Your task to perform on an android device: turn pop-ups on in chrome Image 0: 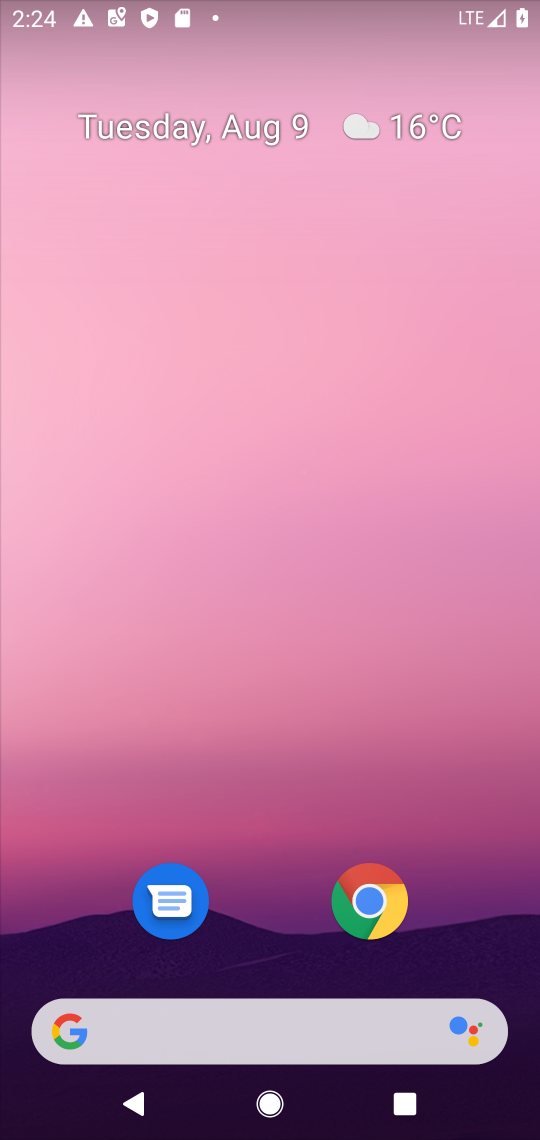
Step 0: click (375, 903)
Your task to perform on an android device: turn pop-ups on in chrome Image 1: 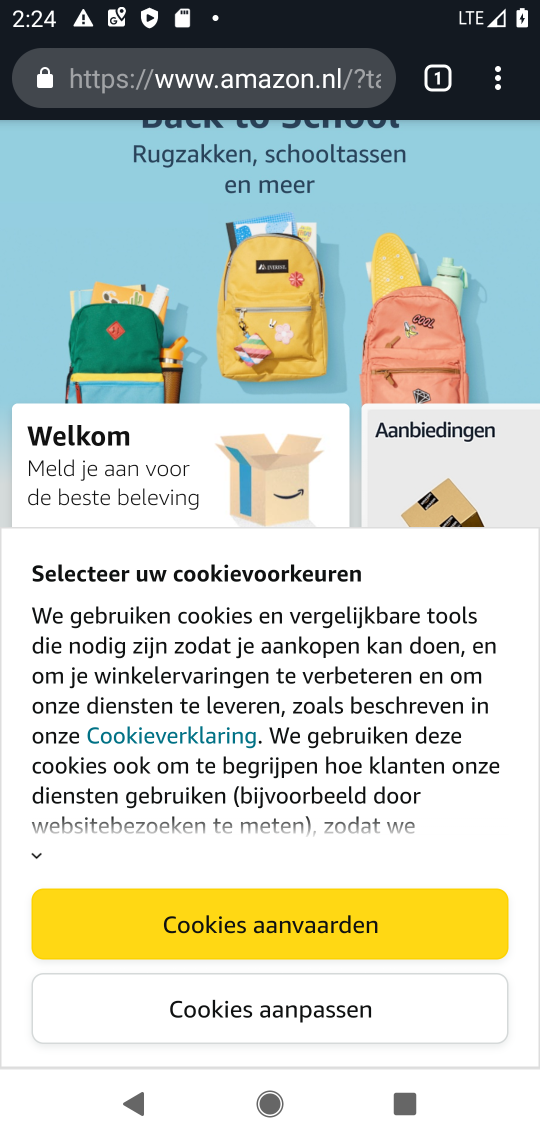
Step 1: click (490, 89)
Your task to perform on an android device: turn pop-ups on in chrome Image 2: 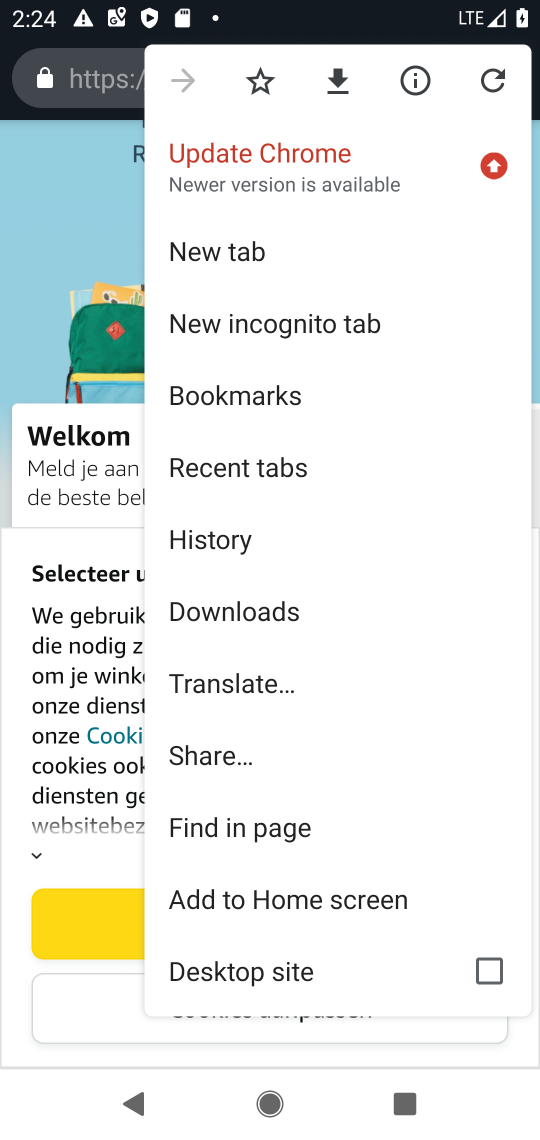
Step 2: drag from (377, 939) to (394, 432)
Your task to perform on an android device: turn pop-ups on in chrome Image 3: 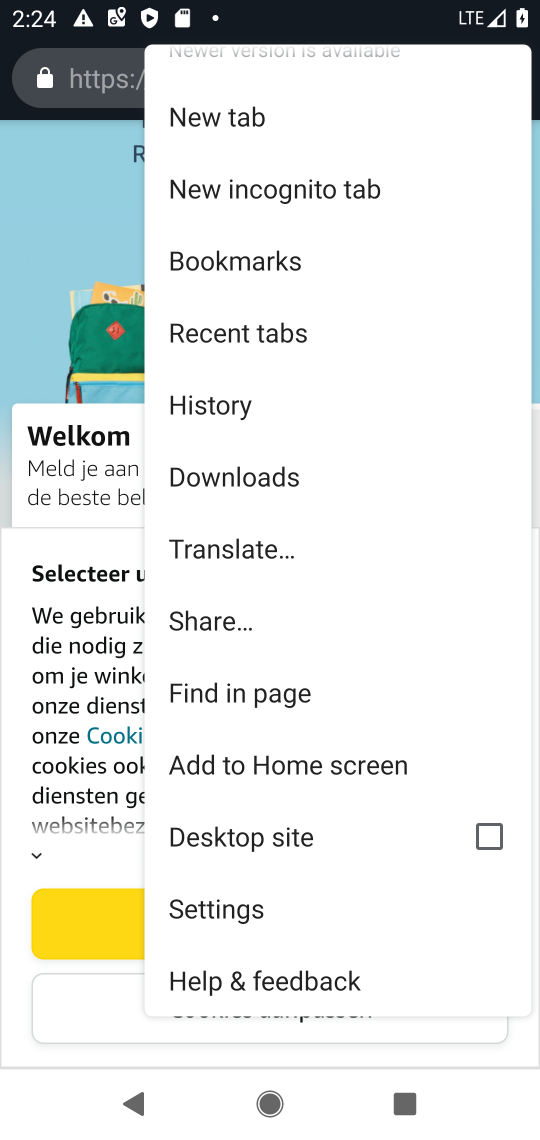
Step 3: click (218, 910)
Your task to perform on an android device: turn pop-ups on in chrome Image 4: 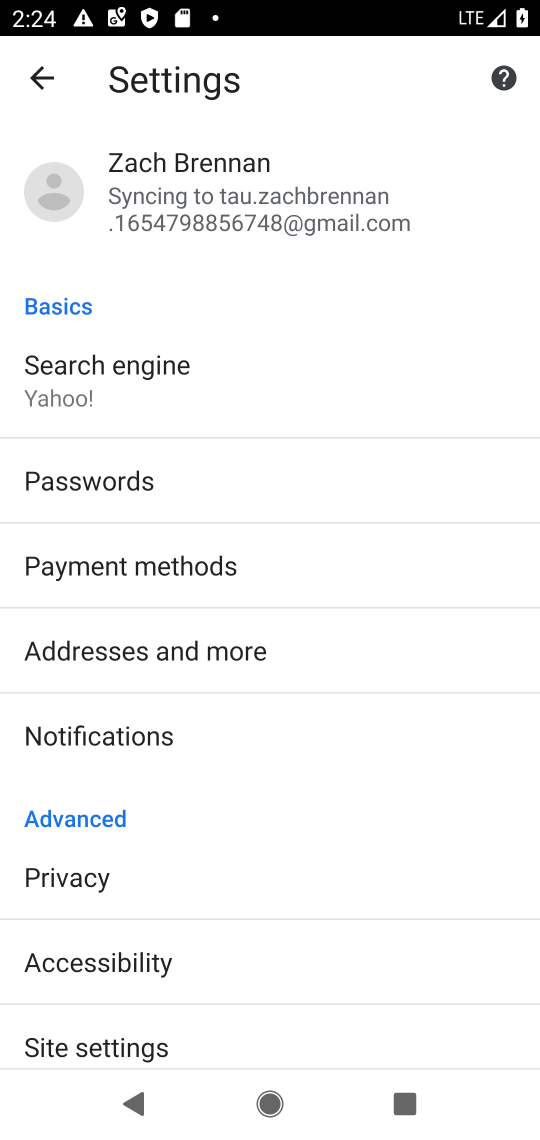
Step 4: drag from (350, 920) to (337, 387)
Your task to perform on an android device: turn pop-ups on in chrome Image 5: 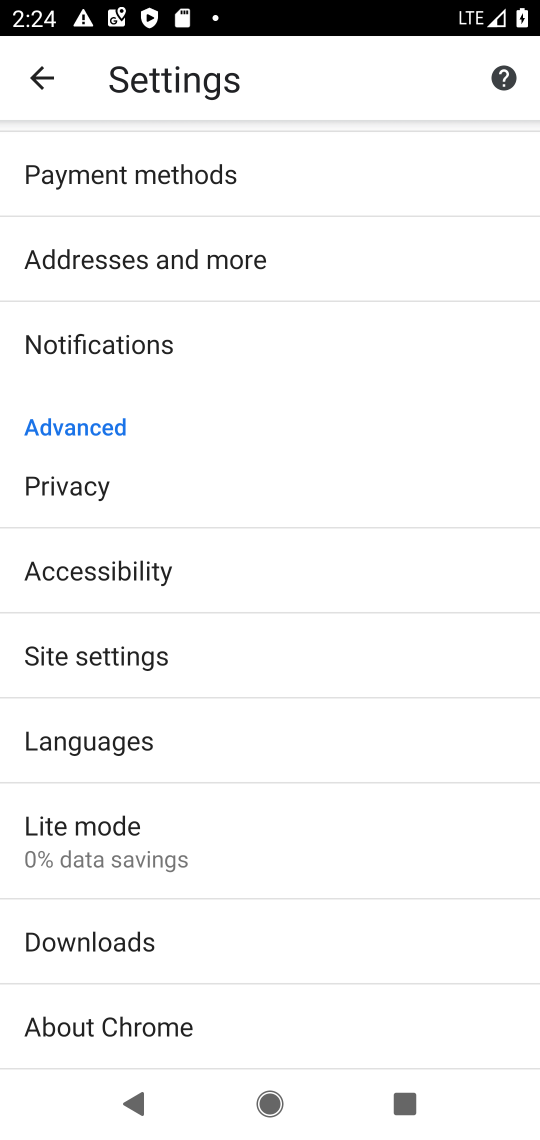
Step 5: click (116, 657)
Your task to perform on an android device: turn pop-ups on in chrome Image 6: 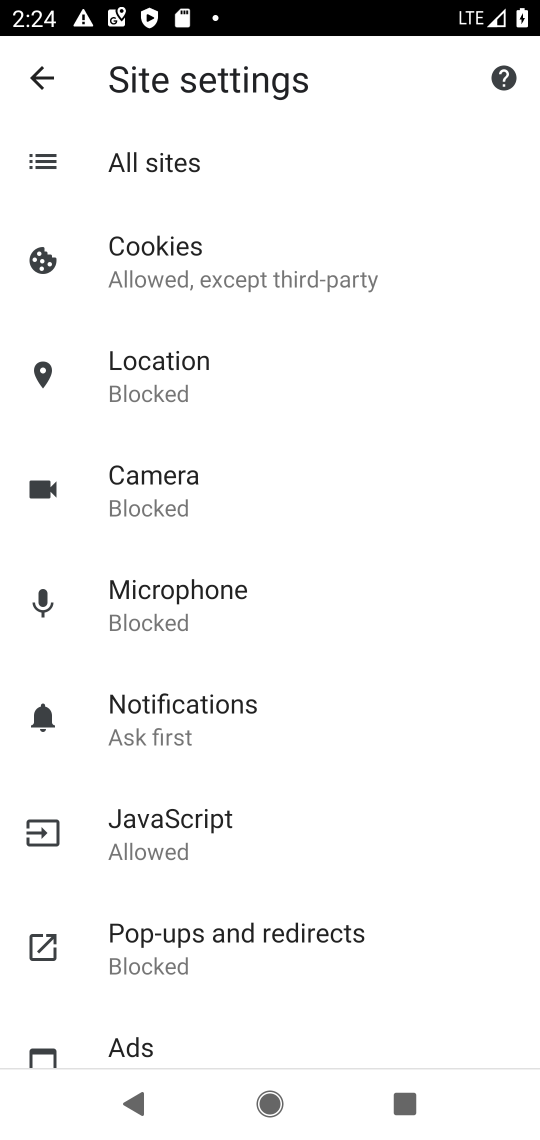
Step 6: click (169, 959)
Your task to perform on an android device: turn pop-ups on in chrome Image 7: 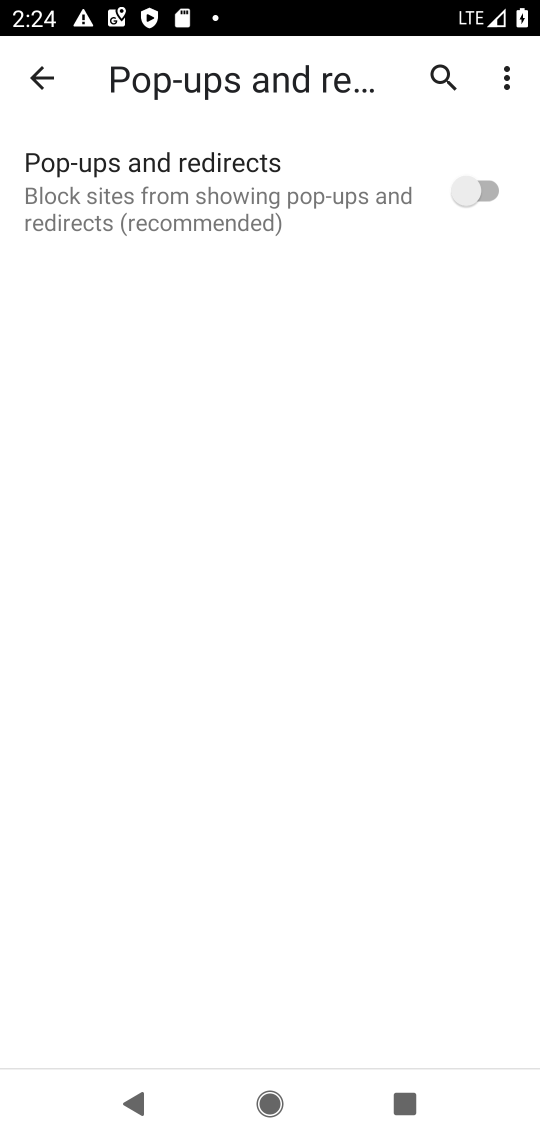
Step 7: click (491, 191)
Your task to perform on an android device: turn pop-ups on in chrome Image 8: 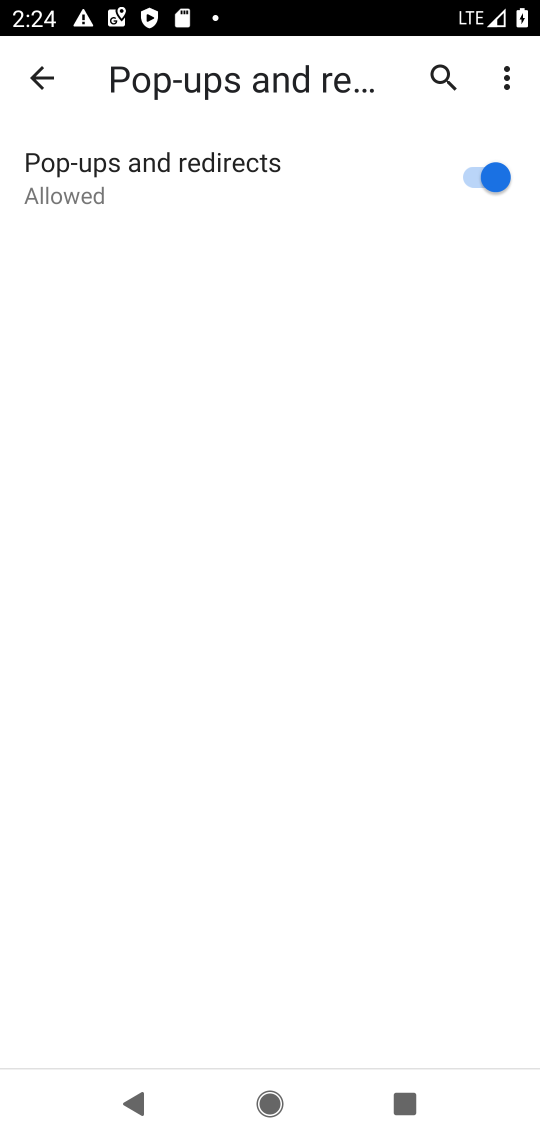
Step 8: task complete